Your task to perform on an android device: Open Google Maps Image 0: 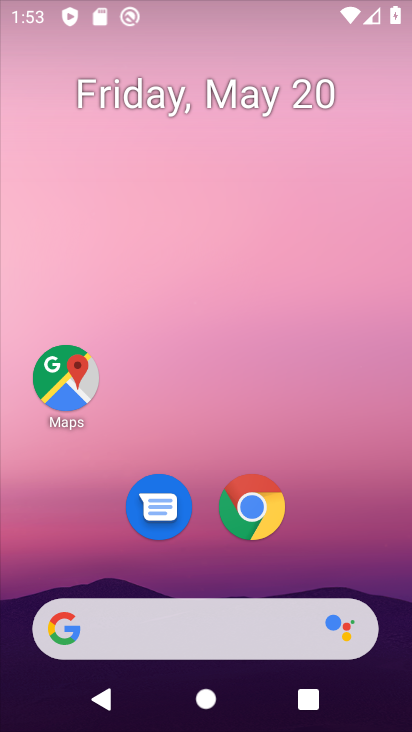
Step 0: press home button
Your task to perform on an android device: Open Google Maps Image 1: 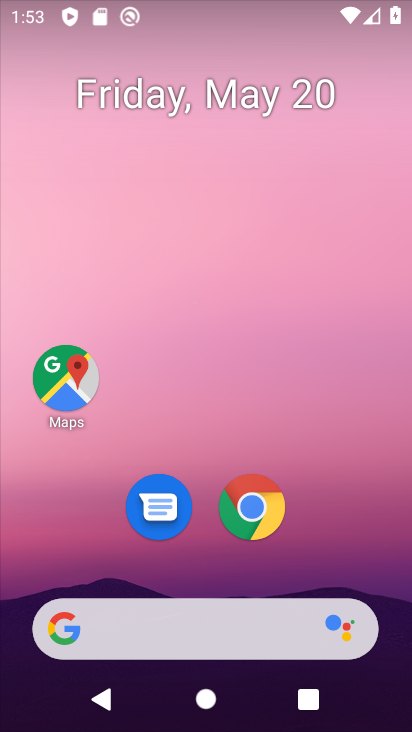
Step 1: drag from (212, 558) to (283, 53)
Your task to perform on an android device: Open Google Maps Image 2: 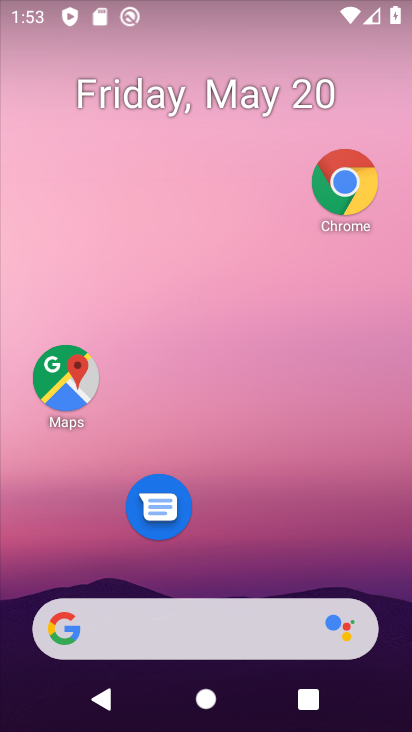
Step 2: click (193, 556)
Your task to perform on an android device: Open Google Maps Image 3: 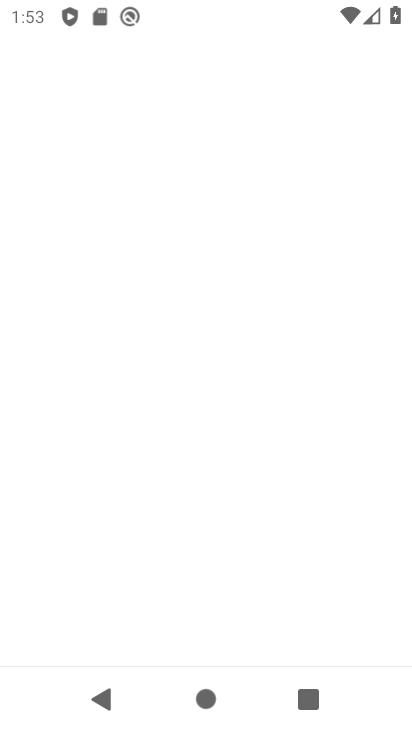
Step 3: drag from (216, 556) to (244, 198)
Your task to perform on an android device: Open Google Maps Image 4: 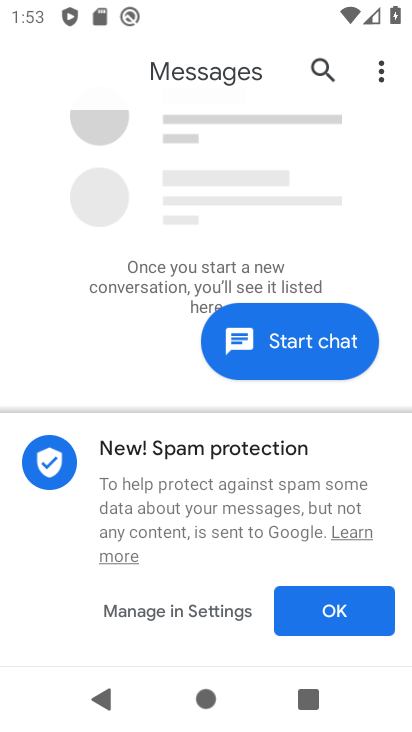
Step 4: press home button
Your task to perform on an android device: Open Google Maps Image 5: 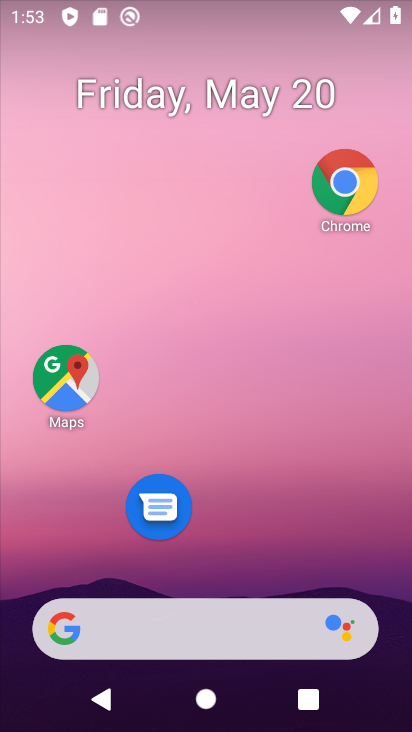
Step 5: click (61, 382)
Your task to perform on an android device: Open Google Maps Image 6: 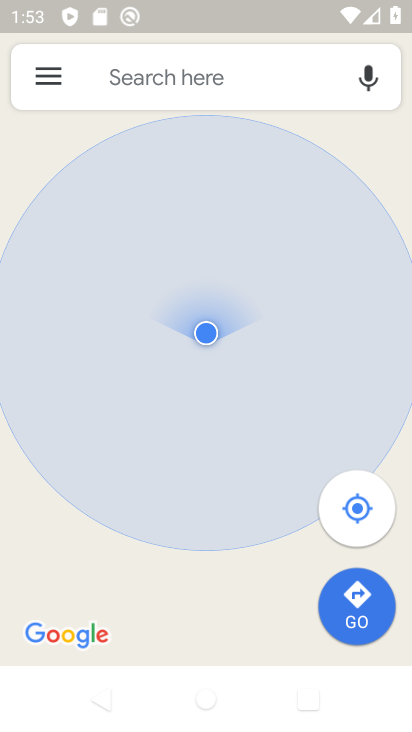
Step 6: task complete